Your task to perform on an android device: Open settings Image 0: 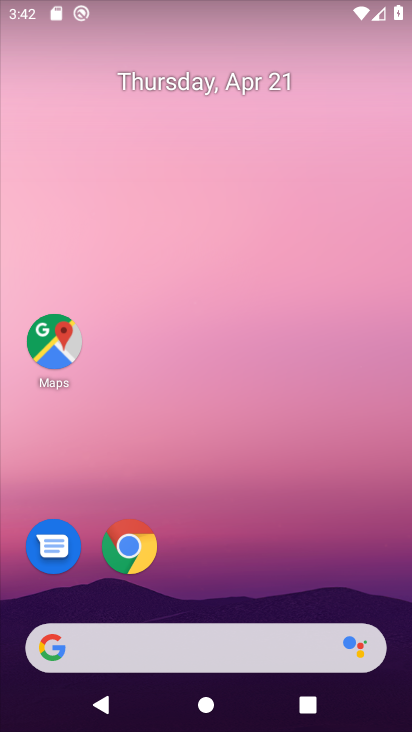
Step 0: drag from (228, 325) to (196, 220)
Your task to perform on an android device: Open settings Image 1: 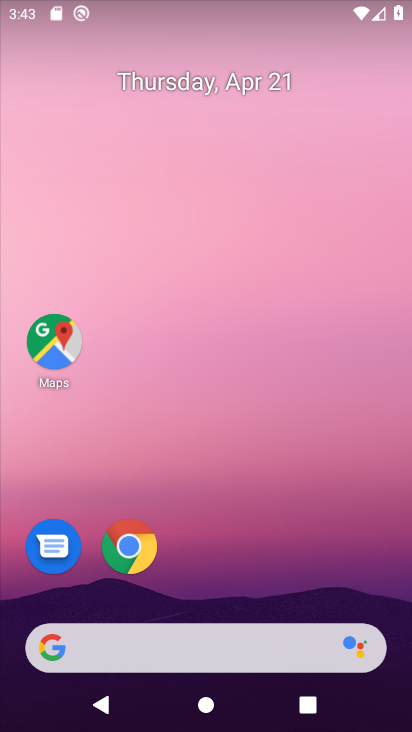
Step 1: drag from (221, 618) to (206, 172)
Your task to perform on an android device: Open settings Image 2: 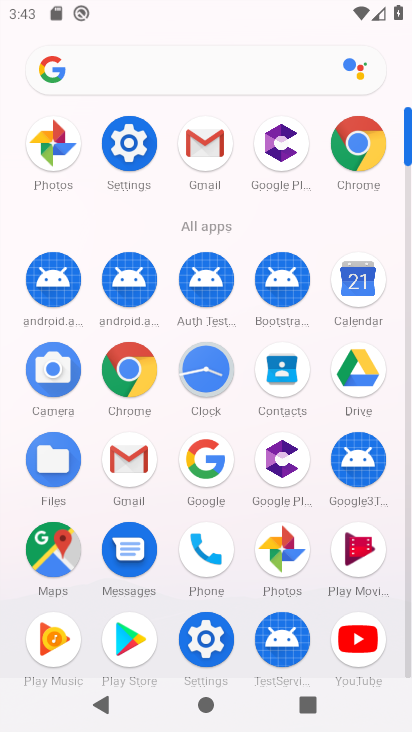
Step 2: click (133, 145)
Your task to perform on an android device: Open settings Image 3: 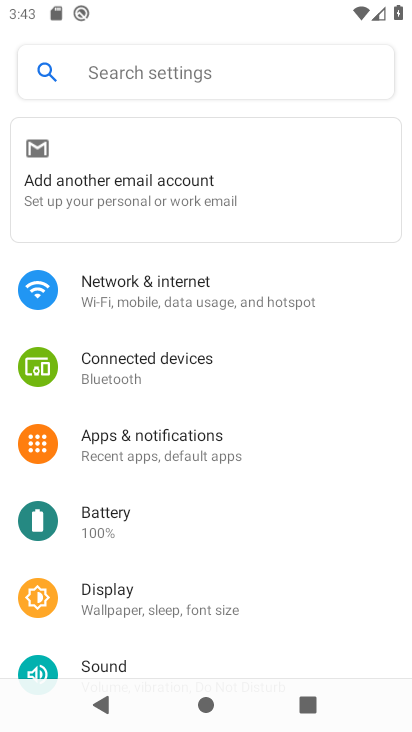
Step 3: task complete